Your task to perform on an android device: When is my next appointment? Image 0: 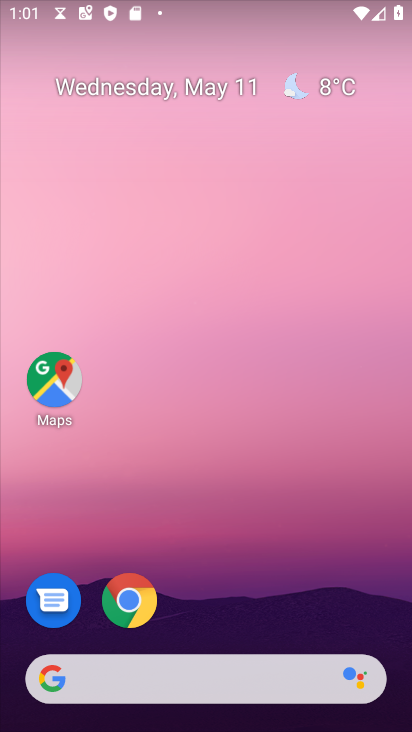
Step 0: drag from (248, 593) to (222, 88)
Your task to perform on an android device: When is my next appointment? Image 1: 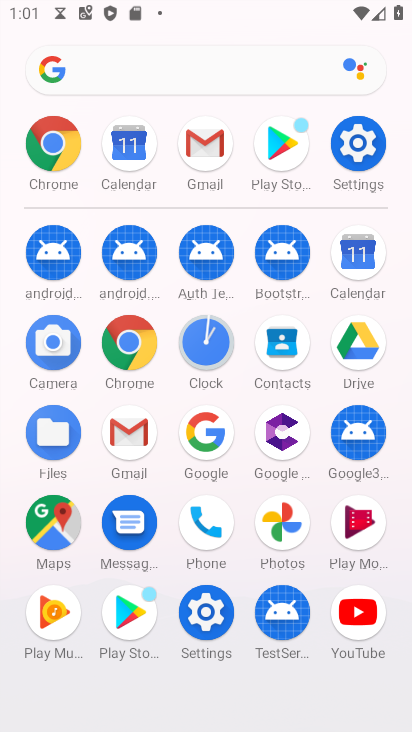
Step 1: click (374, 256)
Your task to perform on an android device: When is my next appointment? Image 2: 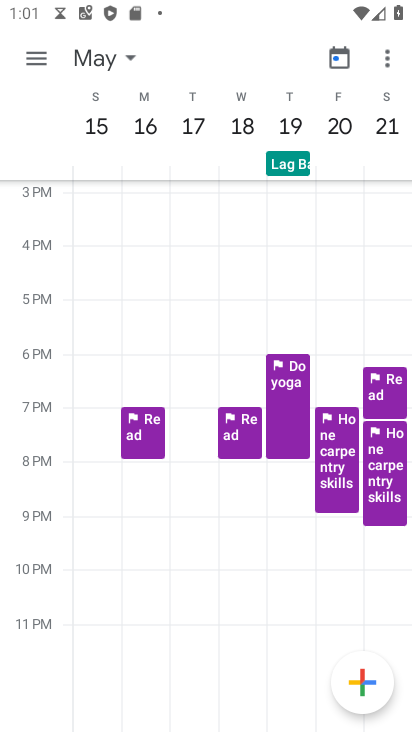
Step 2: drag from (34, 199) to (89, 610)
Your task to perform on an android device: When is my next appointment? Image 3: 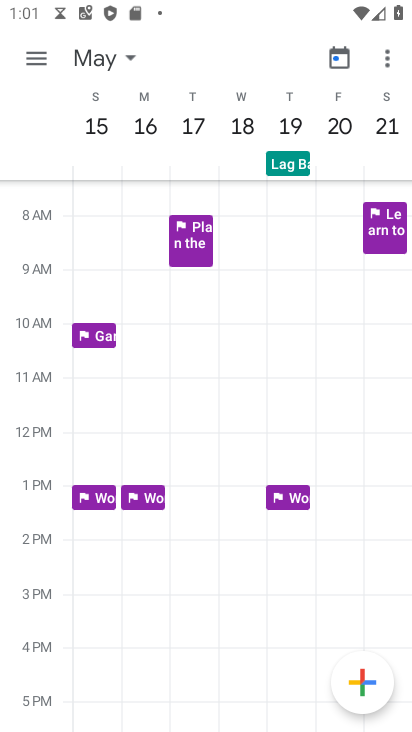
Step 3: drag from (33, 410) to (34, 556)
Your task to perform on an android device: When is my next appointment? Image 4: 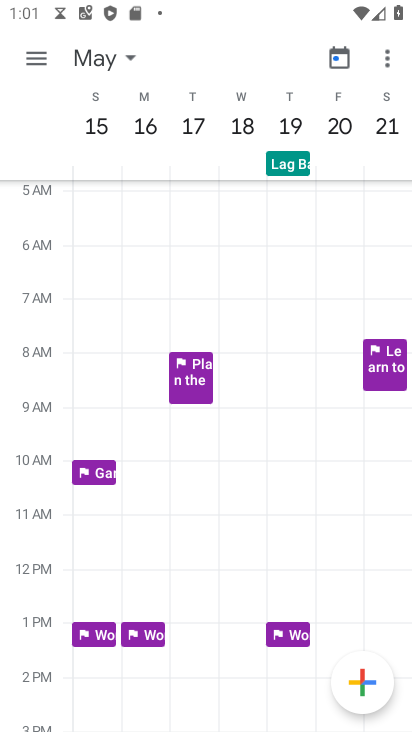
Step 4: click (119, 52)
Your task to perform on an android device: When is my next appointment? Image 5: 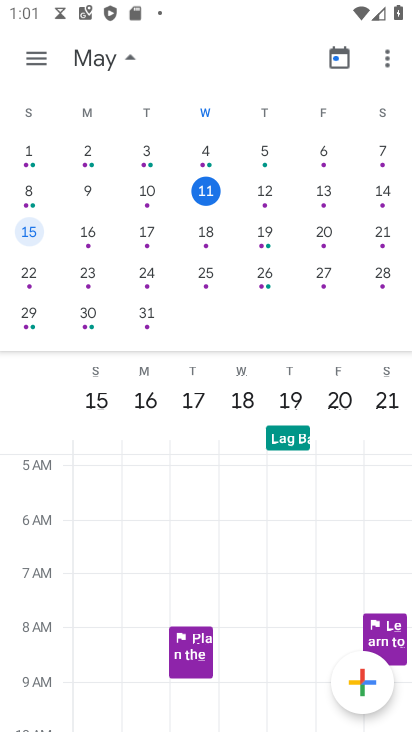
Step 5: click (33, 192)
Your task to perform on an android device: When is my next appointment? Image 6: 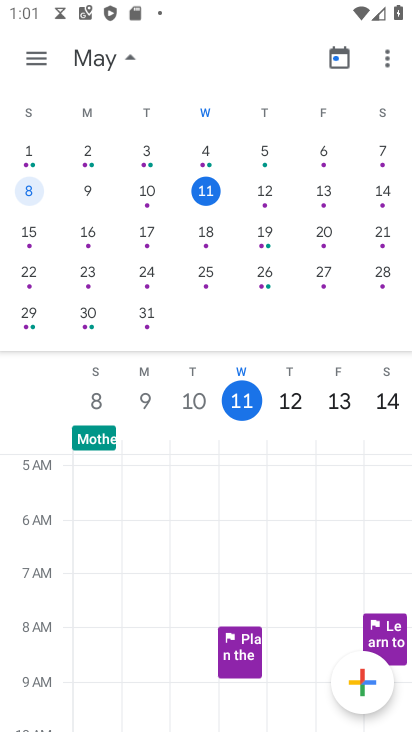
Step 6: task complete